Your task to perform on an android device: turn pop-ups on in chrome Image 0: 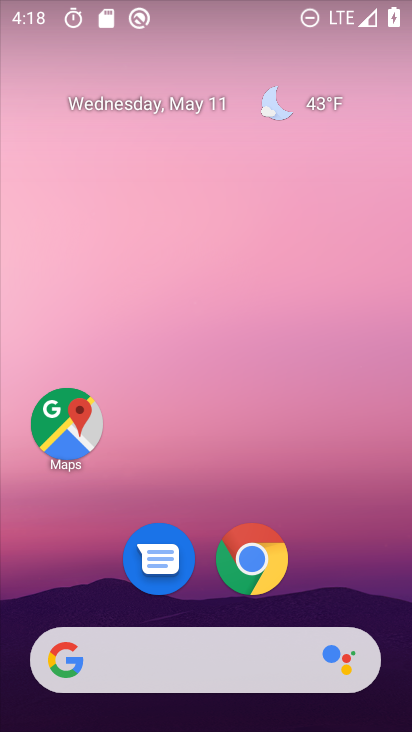
Step 0: click (272, 563)
Your task to perform on an android device: turn pop-ups on in chrome Image 1: 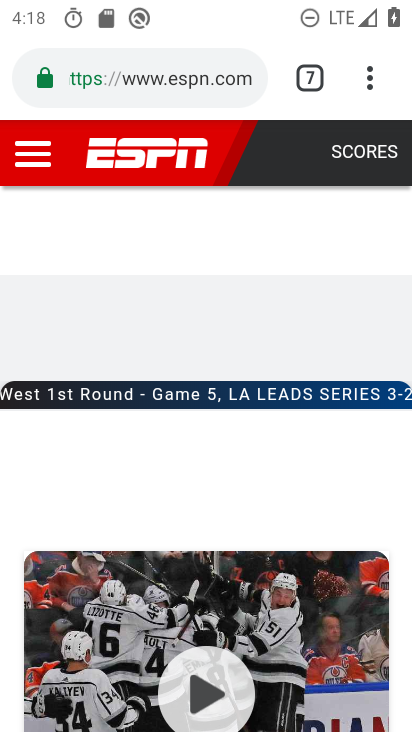
Step 1: click (371, 79)
Your task to perform on an android device: turn pop-ups on in chrome Image 2: 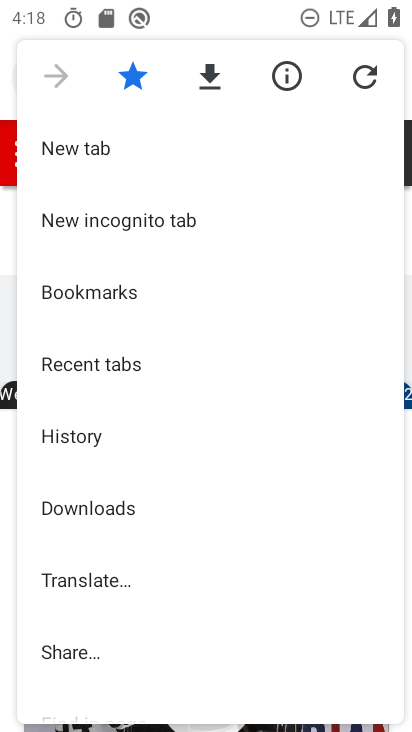
Step 2: drag from (240, 615) to (192, 191)
Your task to perform on an android device: turn pop-ups on in chrome Image 3: 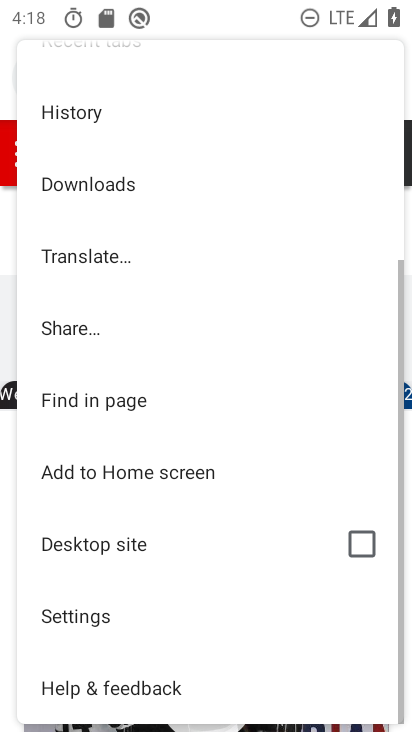
Step 3: click (176, 607)
Your task to perform on an android device: turn pop-ups on in chrome Image 4: 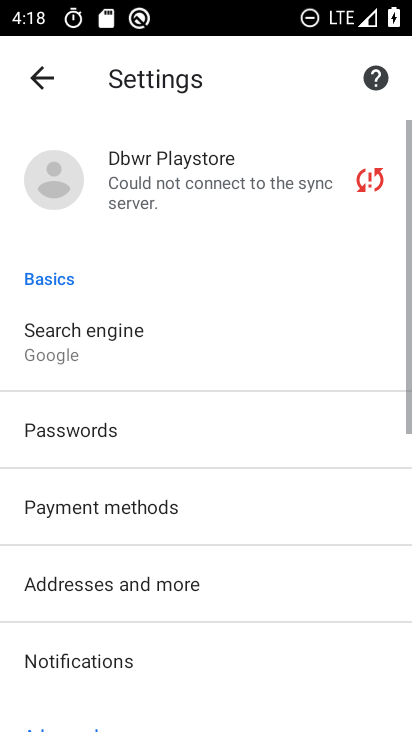
Step 4: drag from (217, 571) to (205, 183)
Your task to perform on an android device: turn pop-ups on in chrome Image 5: 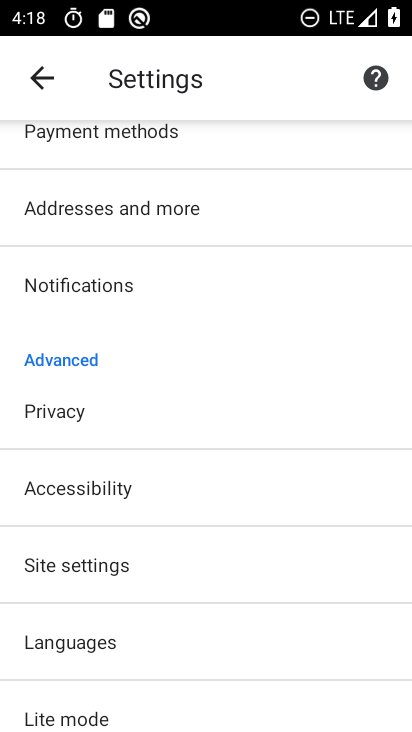
Step 5: click (147, 565)
Your task to perform on an android device: turn pop-ups on in chrome Image 6: 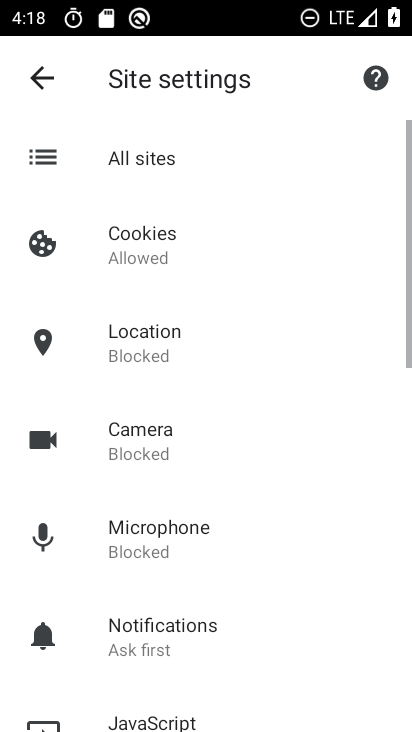
Step 6: drag from (231, 656) to (203, 265)
Your task to perform on an android device: turn pop-ups on in chrome Image 7: 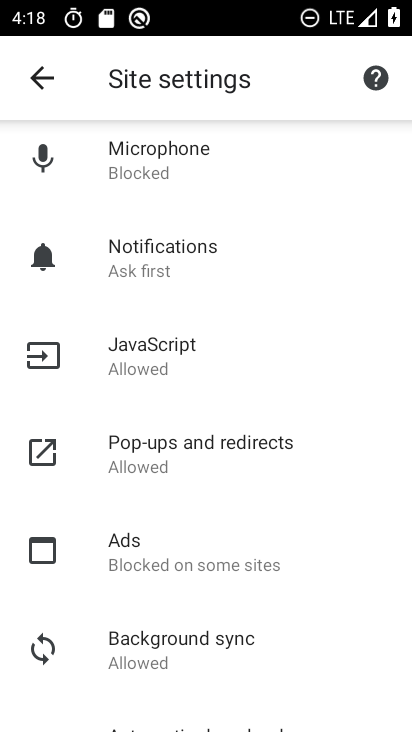
Step 7: click (213, 466)
Your task to perform on an android device: turn pop-ups on in chrome Image 8: 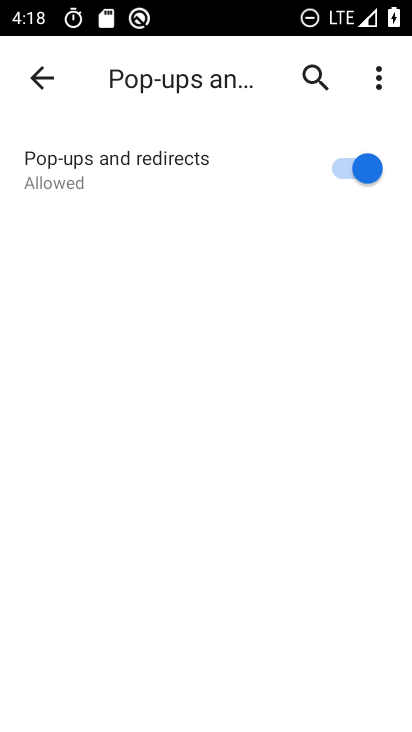
Step 8: task complete